Your task to perform on an android device: change notification settings in the gmail app Image 0: 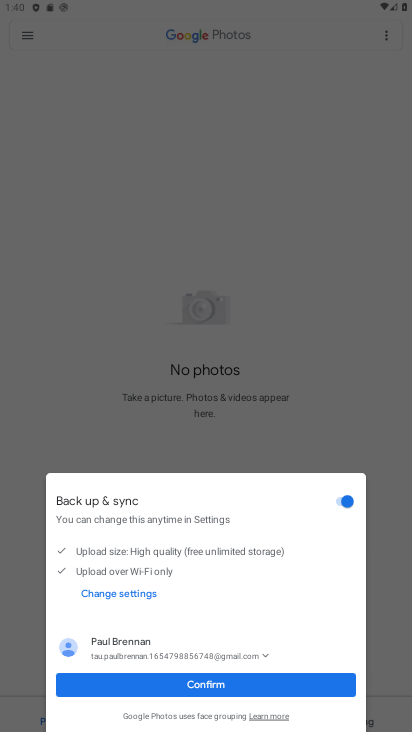
Step 0: press home button
Your task to perform on an android device: change notification settings in the gmail app Image 1: 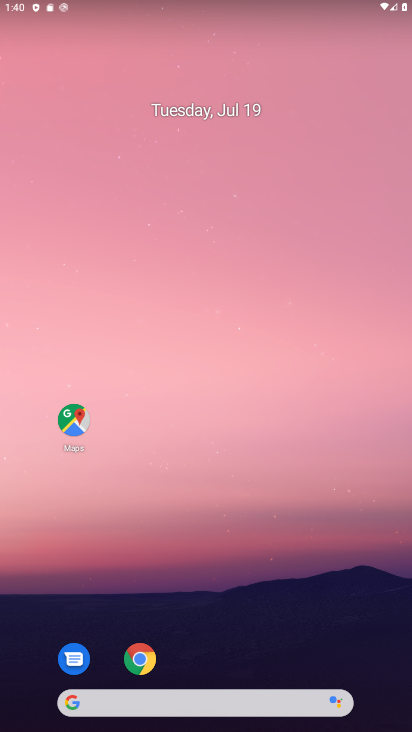
Step 1: drag from (206, 632) to (233, 132)
Your task to perform on an android device: change notification settings in the gmail app Image 2: 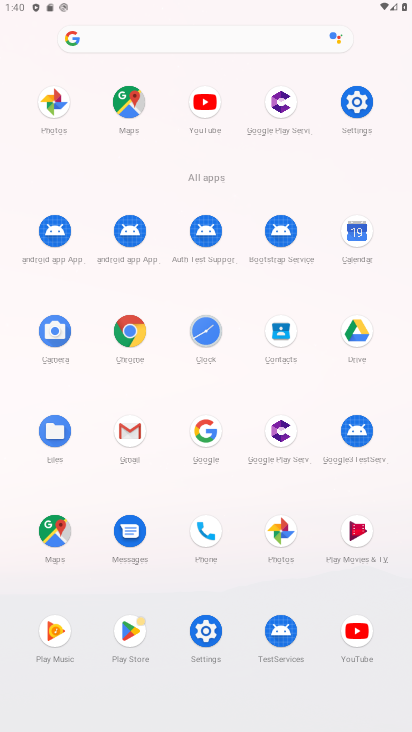
Step 2: click (130, 425)
Your task to perform on an android device: change notification settings in the gmail app Image 3: 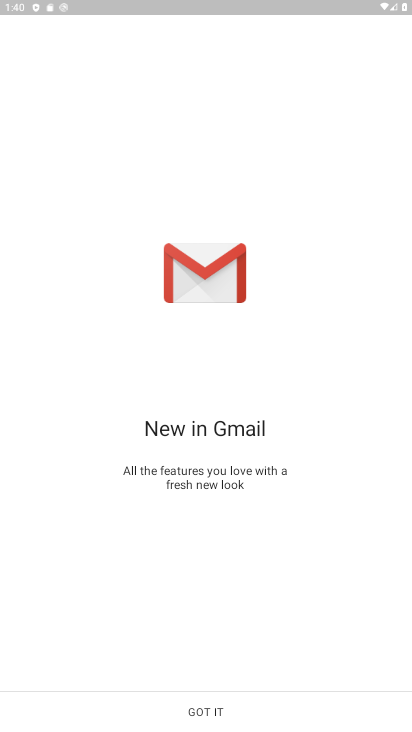
Step 3: click (190, 716)
Your task to perform on an android device: change notification settings in the gmail app Image 4: 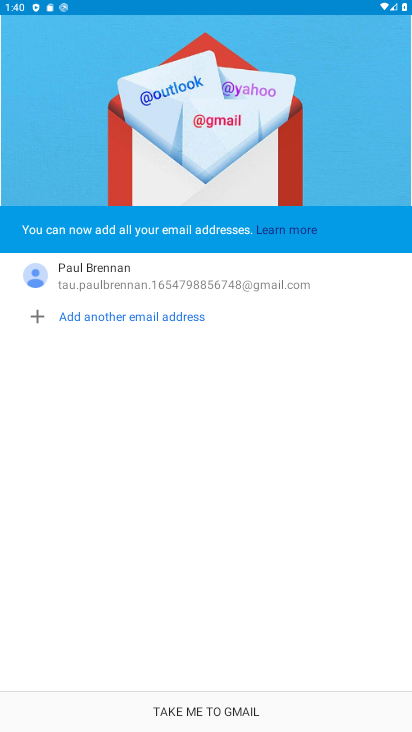
Step 4: click (218, 706)
Your task to perform on an android device: change notification settings in the gmail app Image 5: 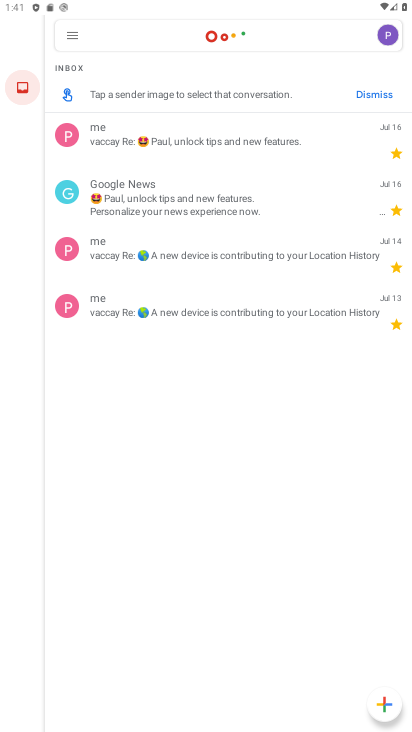
Step 5: click (70, 37)
Your task to perform on an android device: change notification settings in the gmail app Image 6: 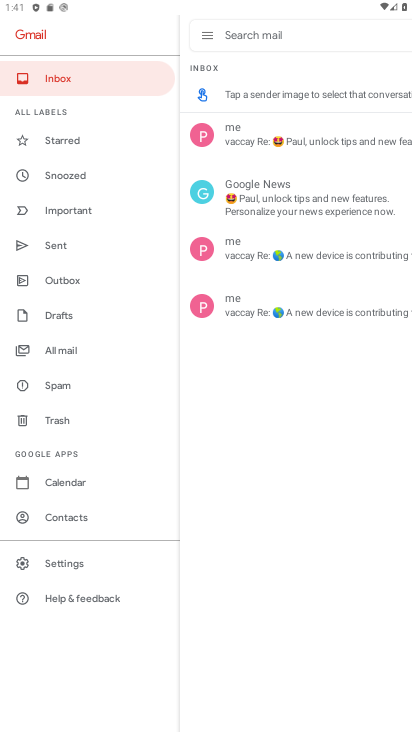
Step 6: click (74, 560)
Your task to perform on an android device: change notification settings in the gmail app Image 7: 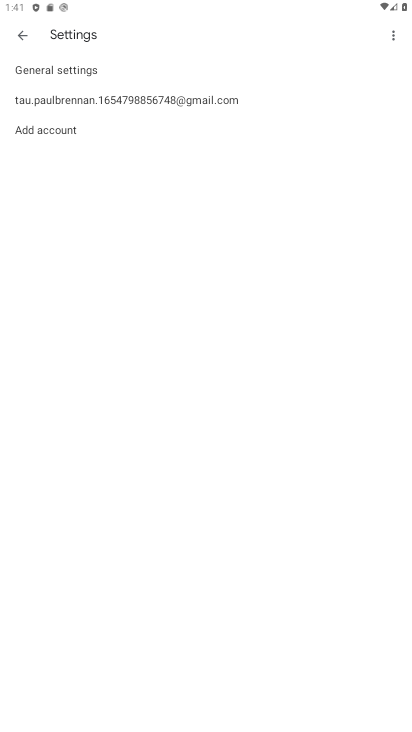
Step 7: click (118, 100)
Your task to perform on an android device: change notification settings in the gmail app Image 8: 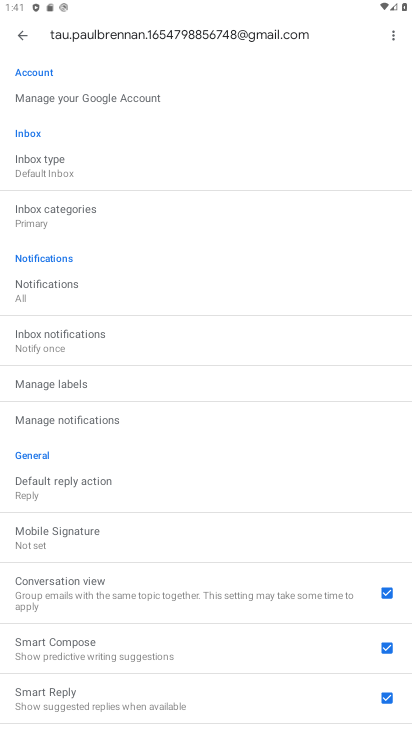
Step 8: click (81, 286)
Your task to perform on an android device: change notification settings in the gmail app Image 9: 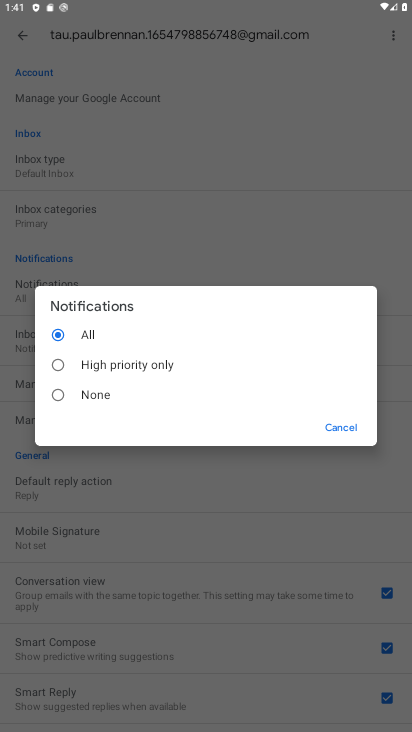
Step 9: click (58, 400)
Your task to perform on an android device: change notification settings in the gmail app Image 10: 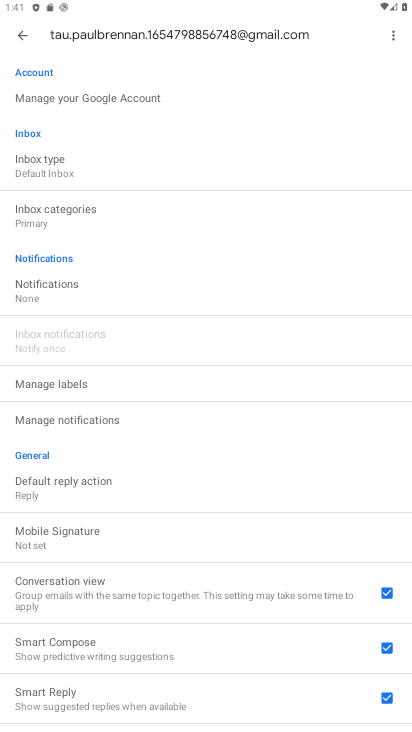
Step 10: task complete